Your task to perform on an android device: What is the capital of France? Image 0: 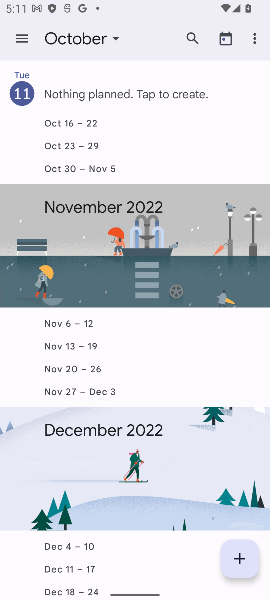
Step 0: press home button
Your task to perform on an android device: What is the capital of France? Image 1: 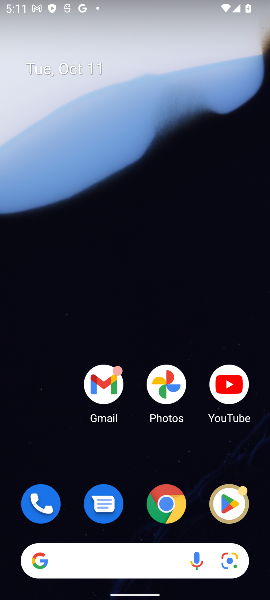
Step 1: click (97, 561)
Your task to perform on an android device: What is the capital of France? Image 2: 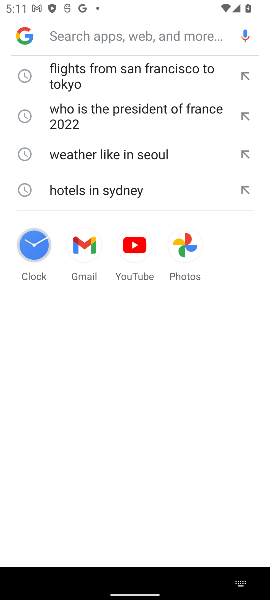
Step 2: click (84, 43)
Your task to perform on an android device: What is the capital of France? Image 3: 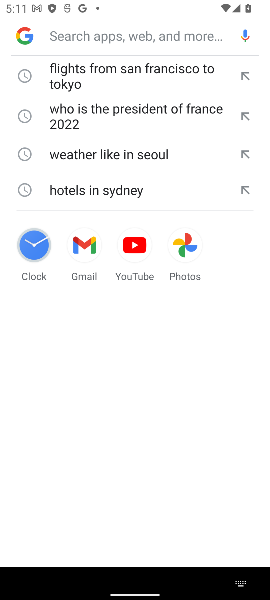
Step 3: type "What is the capital of France?"
Your task to perform on an android device: What is the capital of France? Image 4: 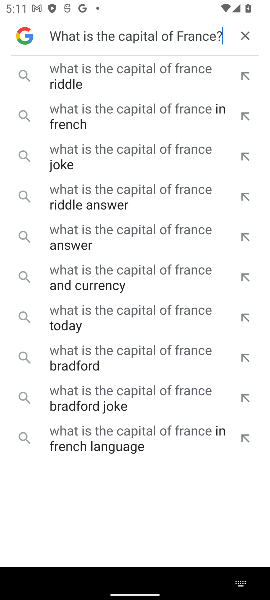
Step 4: click (133, 119)
Your task to perform on an android device: What is the capital of France? Image 5: 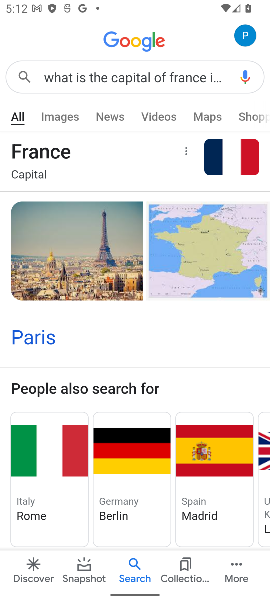
Step 5: task complete